Your task to perform on an android device: Go to Android settings Image 0: 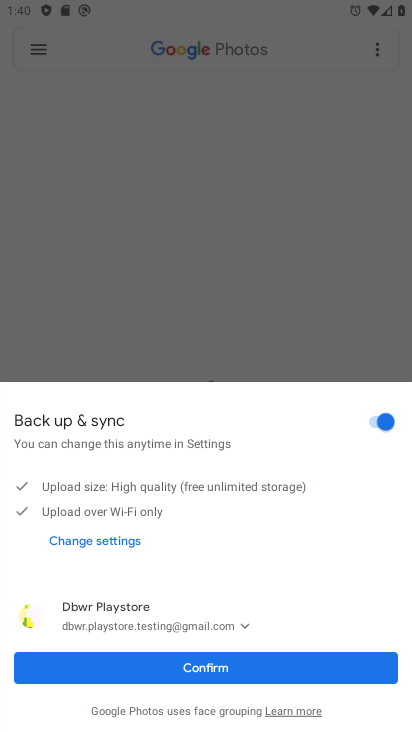
Step 0: click (282, 668)
Your task to perform on an android device: Go to Android settings Image 1: 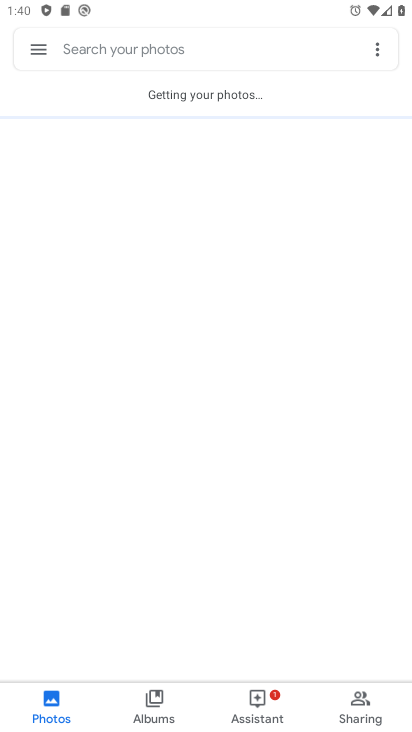
Step 1: press home button
Your task to perform on an android device: Go to Android settings Image 2: 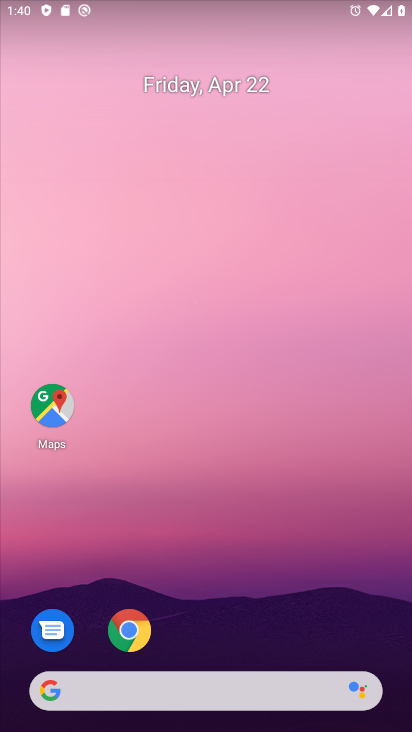
Step 2: drag from (256, 632) to (228, 167)
Your task to perform on an android device: Go to Android settings Image 3: 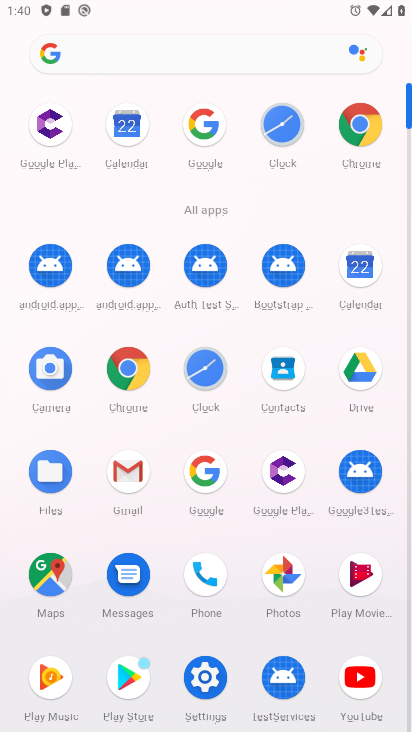
Step 3: click (199, 669)
Your task to perform on an android device: Go to Android settings Image 4: 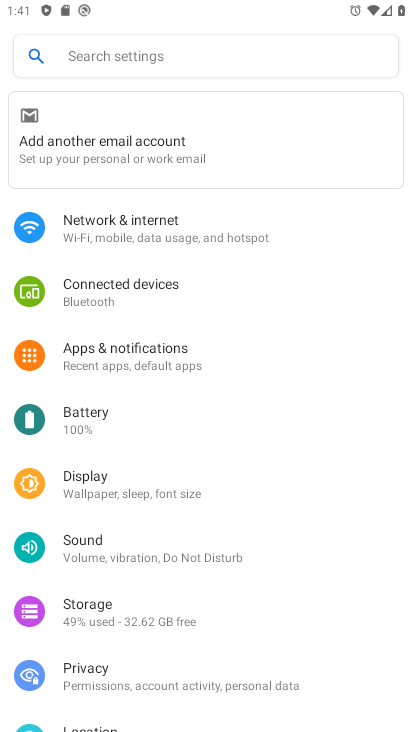
Step 4: task complete